Your task to perform on an android device: check android version Image 0: 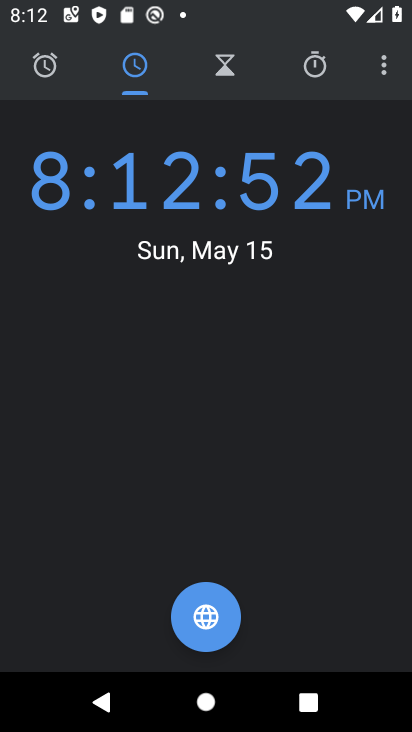
Step 0: press home button
Your task to perform on an android device: check android version Image 1: 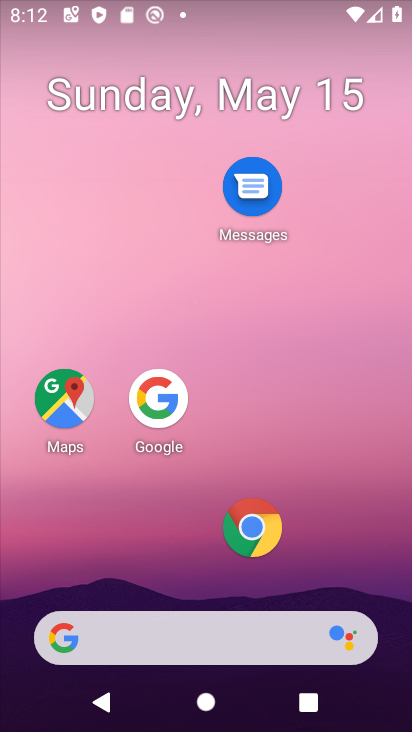
Step 1: drag from (202, 641) to (333, 259)
Your task to perform on an android device: check android version Image 2: 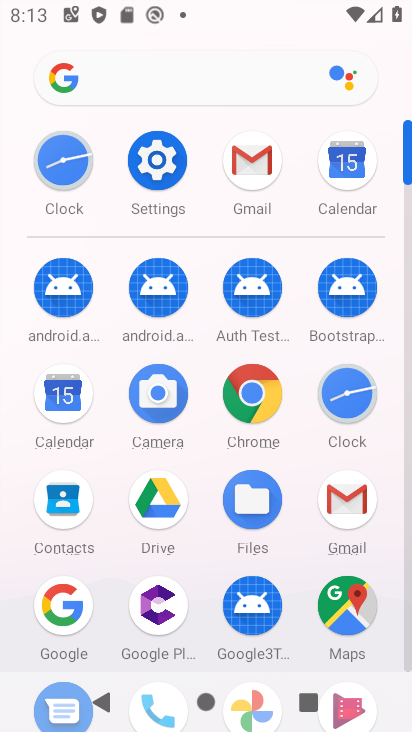
Step 2: click (158, 168)
Your task to perform on an android device: check android version Image 3: 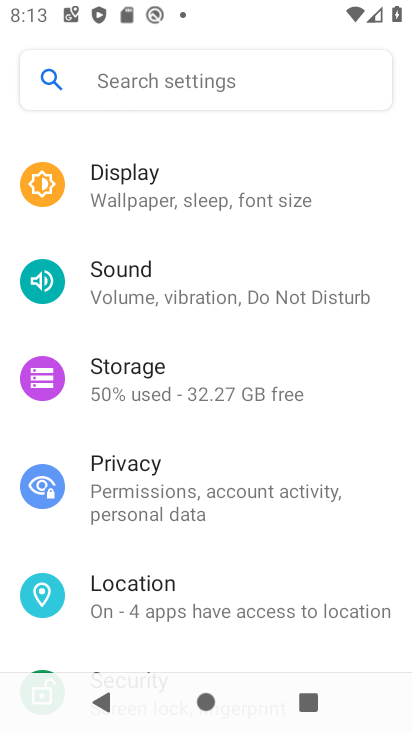
Step 3: drag from (245, 486) to (357, 195)
Your task to perform on an android device: check android version Image 4: 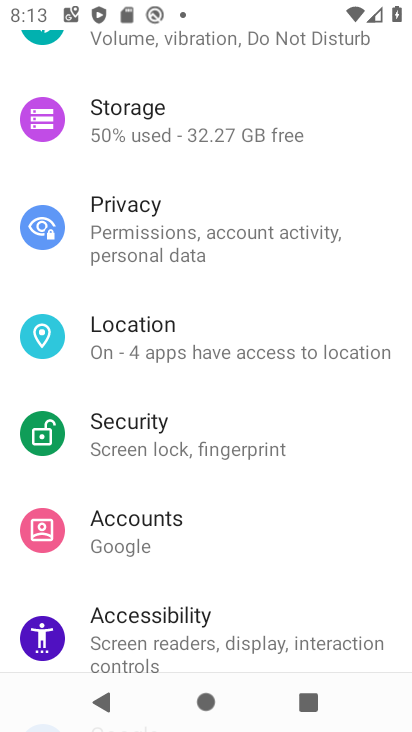
Step 4: drag from (228, 594) to (383, 141)
Your task to perform on an android device: check android version Image 5: 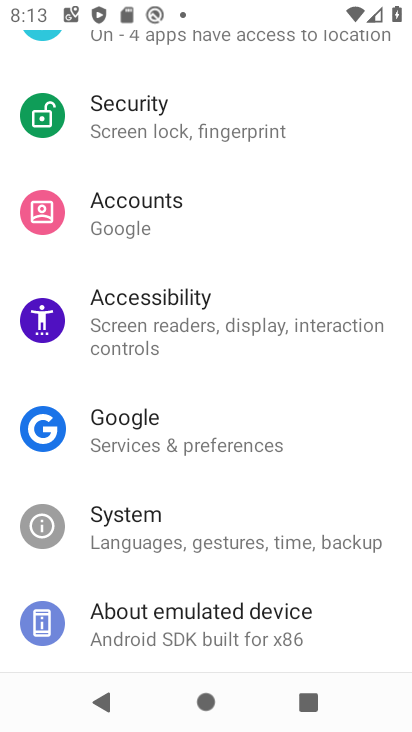
Step 5: click (200, 620)
Your task to perform on an android device: check android version Image 6: 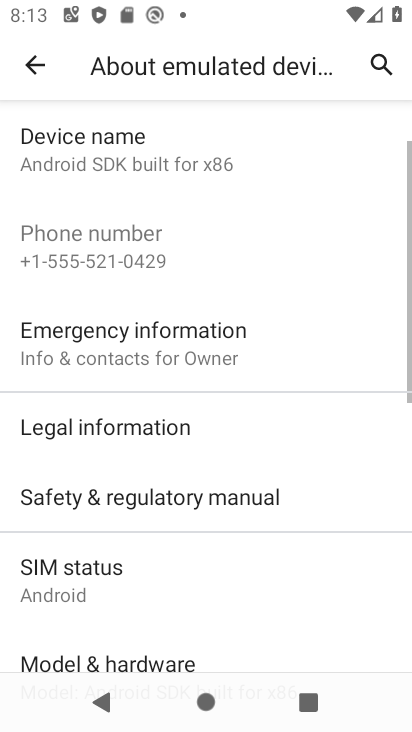
Step 6: drag from (189, 642) to (309, 49)
Your task to perform on an android device: check android version Image 7: 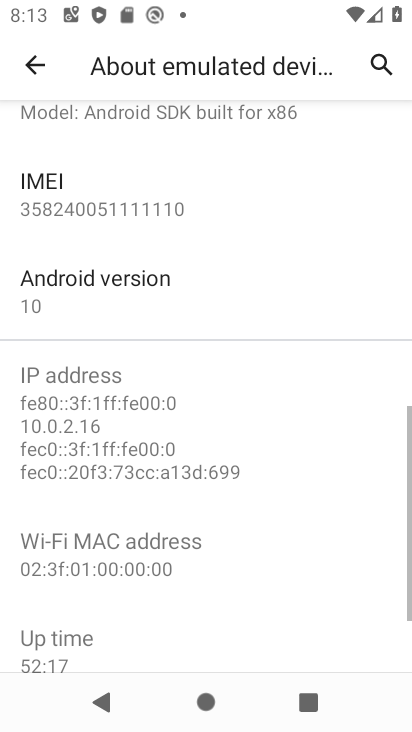
Step 7: click (97, 280)
Your task to perform on an android device: check android version Image 8: 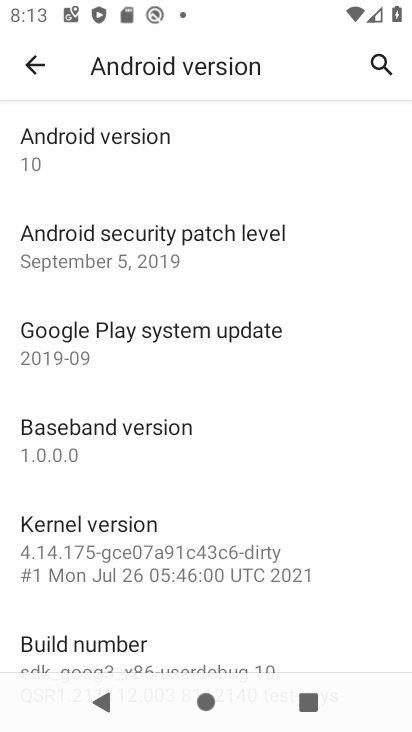
Step 8: task complete